Your task to perform on an android device: Show me recent news Image 0: 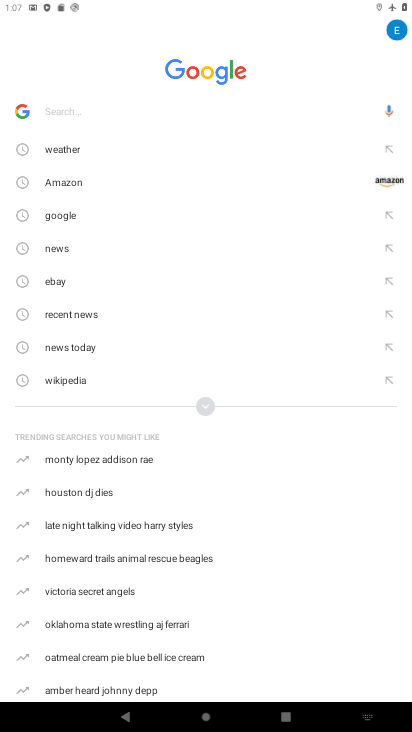
Step 0: press home button
Your task to perform on an android device: Show me recent news Image 1: 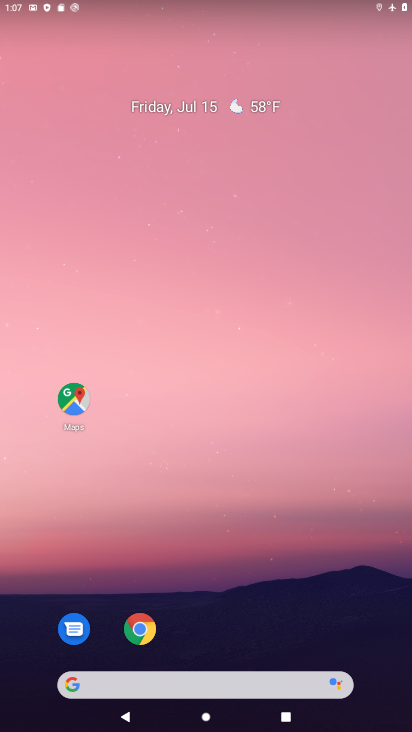
Step 1: drag from (262, 613) to (207, 112)
Your task to perform on an android device: Show me recent news Image 2: 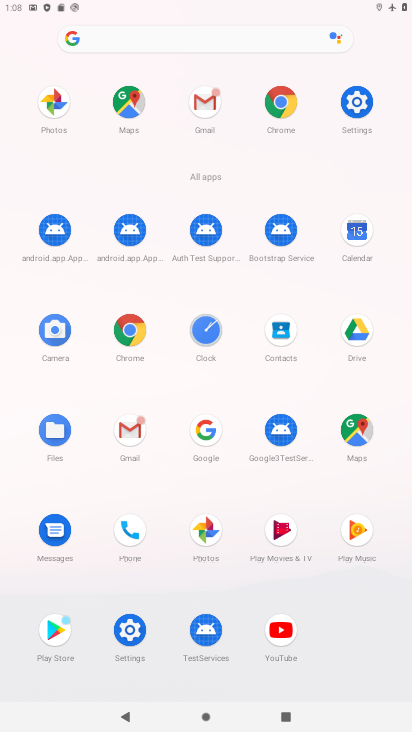
Step 2: click (208, 427)
Your task to perform on an android device: Show me recent news Image 3: 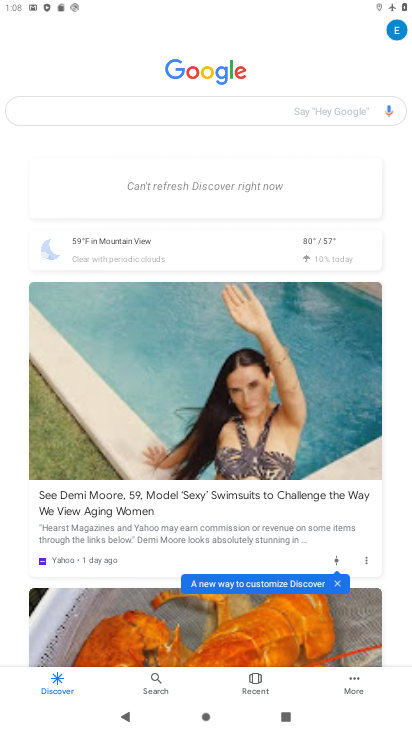
Step 3: click (187, 111)
Your task to perform on an android device: Show me recent news Image 4: 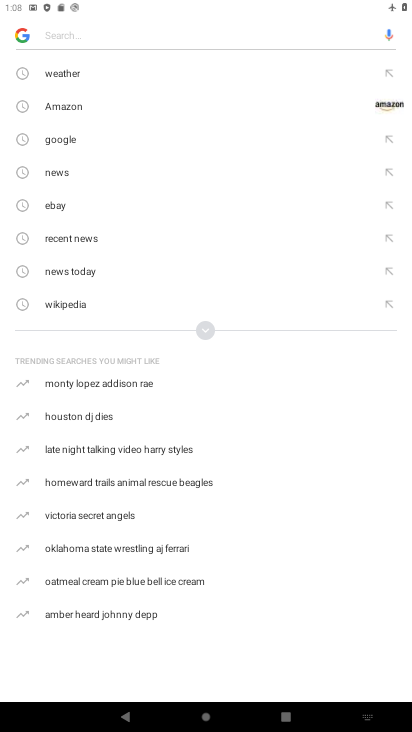
Step 4: click (92, 238)
Your task to perform on an android device: Show me recent news Image 5: 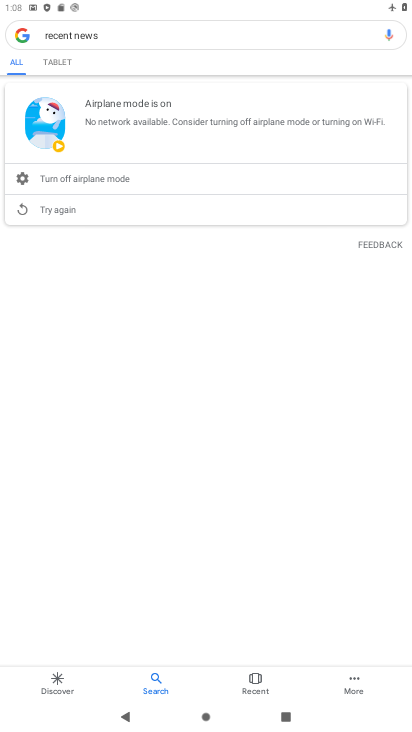
Step 5: task complete